Your task to perform on an android device: open app "McDonald's" (install if not already installed) and enter user name: "copes@yahoo.com" and password: "Rhenish" Image 0: 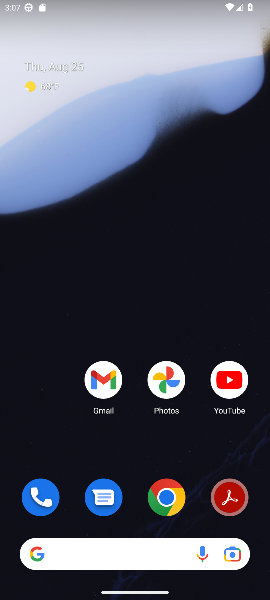
Step 0: drag from (149, 526) to (155, 94)
Your task to perform on an android device: open app "McDonald's" (install if not already installed) and enter user name: "copes@yahoo.com" and password: "Rhenish" Image 1: 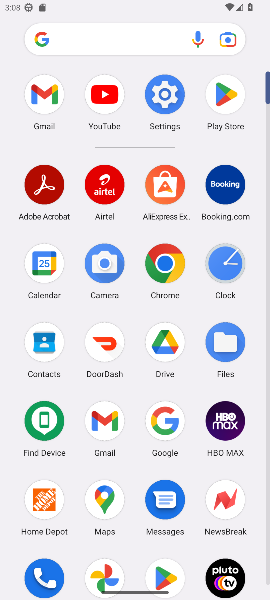
Step 1: click (220, 87)
Your task to perform on an android device: open app "McDonald's" (install if not already installed) and enter user name: "copes@yahoo.com" and password: "Rhenish" Image 2: 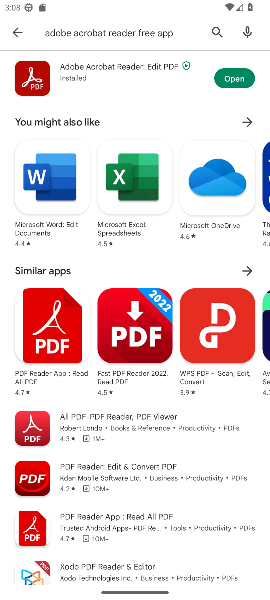
Step 2: click (4, 34)
Your task to perform on an android device: open app "McDonald's" (install if not already installed) and enter user name: "copes@yahoo.com" and password: "Rhenish" Image 3: 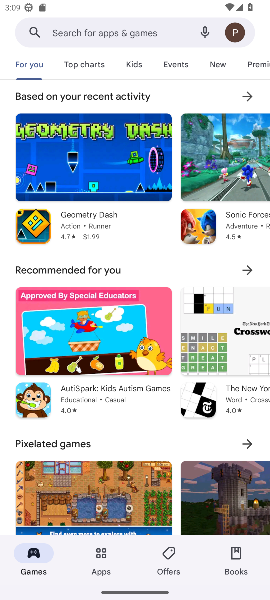
Step 3: click (111, 22)
Your task to perform on an android device: open app "McDonald's" (install if not already installed) and enter user name: "copes@yahoo.com" and password: "Rhenish" Image 4: 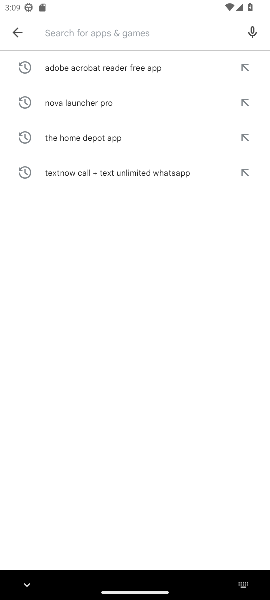
Step 4: type "McDonald's "
Your task to perform on an android device: open app "McDonald's" (install if not already installed) and enter user name: "copes@yahoo.com" and password: "Rhenish" Image 5: 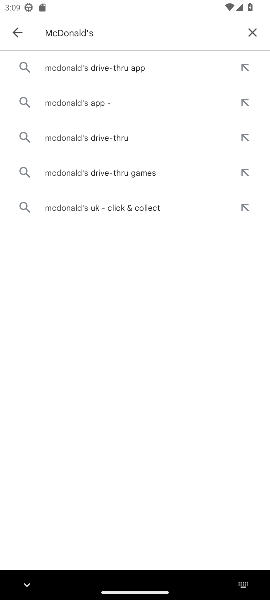
Step 5: click (116, 72)
Your task to perform on an android device: open app "McDonald's" (install if not already installed) and enter user name: "copes@yahoo.com" and password: "Rhenish" Image 6: 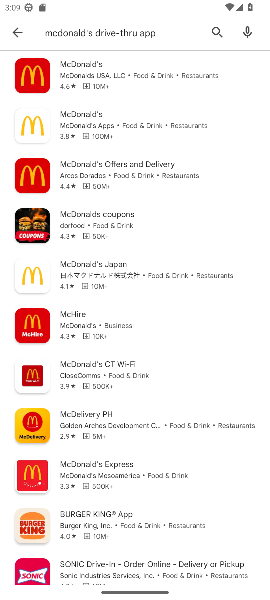
Step 6: click (125, 67)
Your task to perform on an android device: open app "McDonald's" (install if not already installed) and enter user name: "copes@yahoo.com" and password: "Rhenish" Image 7: 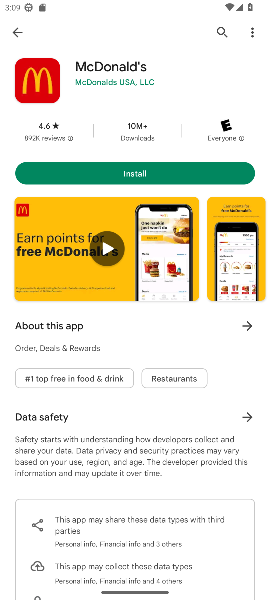
Step 7: click (123, 172)
Your task to perform on an android device: open app "McDonald's" (install if not already installed) and enter user name: "copes@yahoo.com" and password: "Rhenish" Image 8: 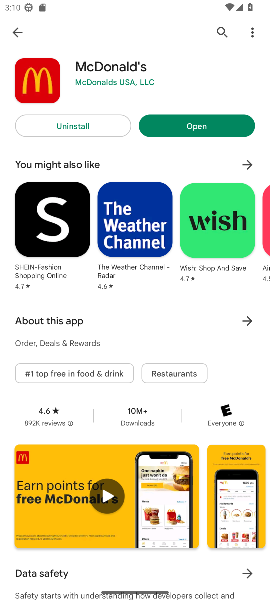
Step 8: task complete